Your task to perform on an android device: toggle wifi Image 0: 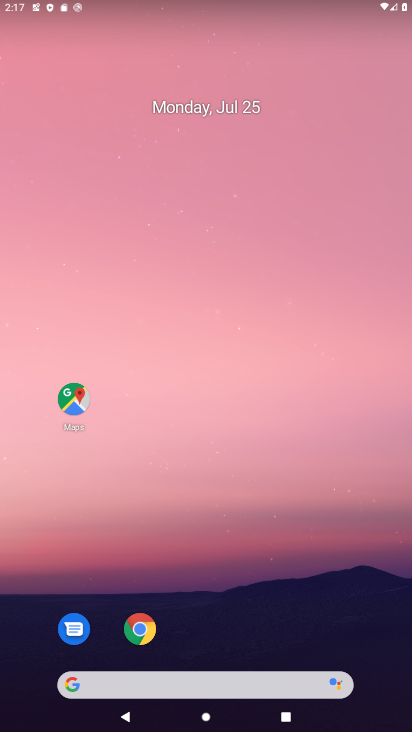
Step 0: drag from (178, 624) to (253, 107)
Your task to perform on an android device: toggle wifi Image 1: 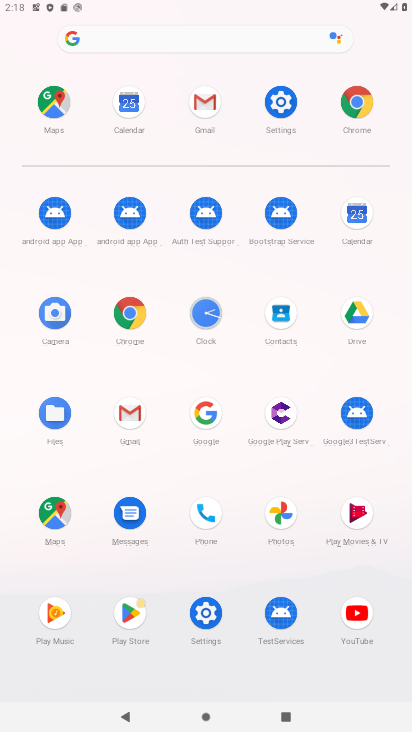
Step 1: click (204, 616)
Your task to perform on an android device: toggle wifi Image 2: 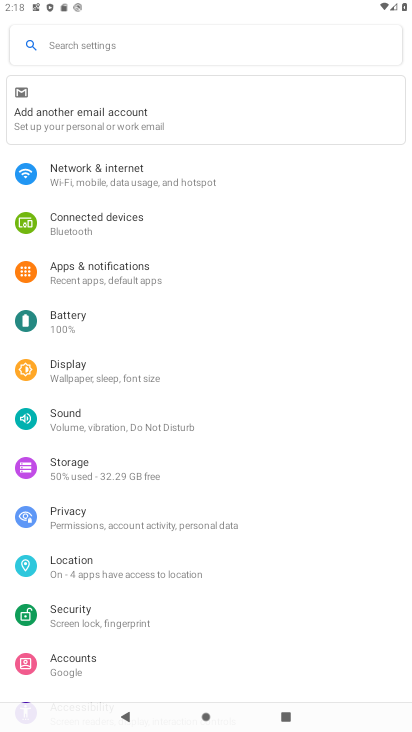
Step 2: click (112, 186)
Your task to perform on an android device: toggle wifi Image 3: 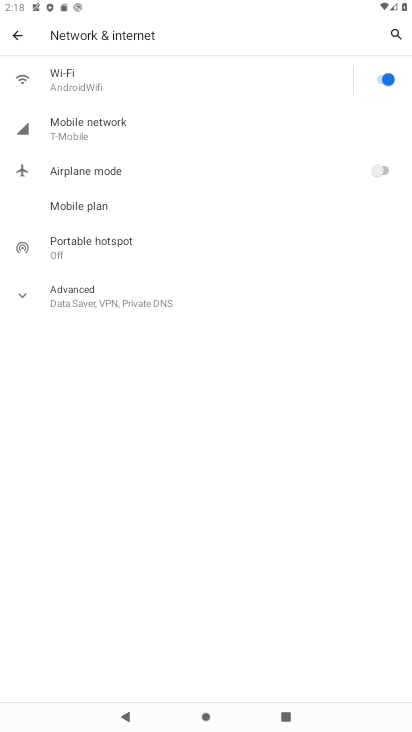
Step 3: click (142, 87)
Your task to perform on an android device: toggle wifi Image 4: 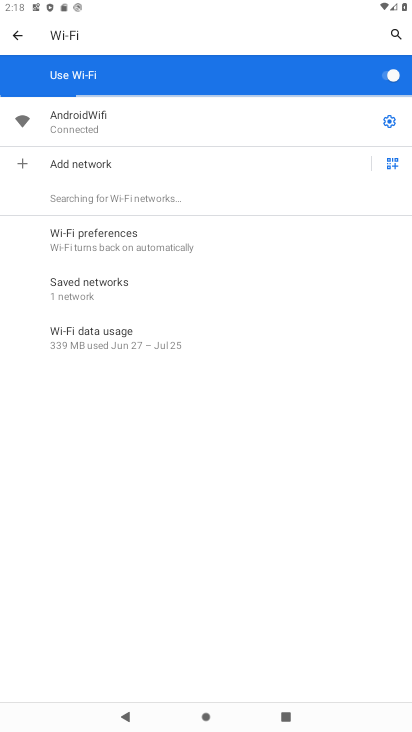
Step 4: click (388, 116)
Your task to perform on an android device: toggle wifi Image 5: 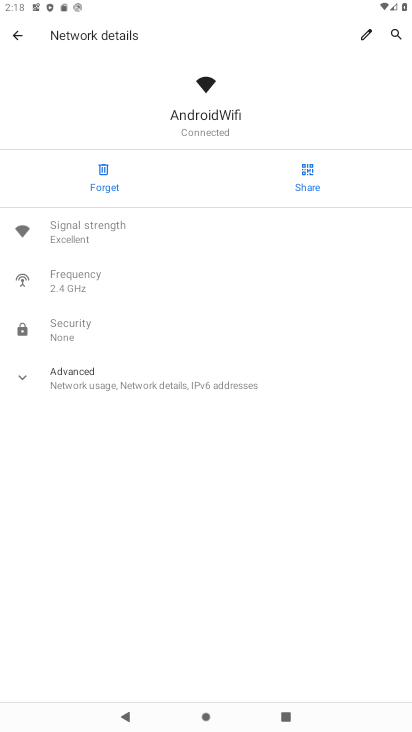
Step 5: click (10, 28)
Your task to perform on an android device: toggle wifi Image 6: 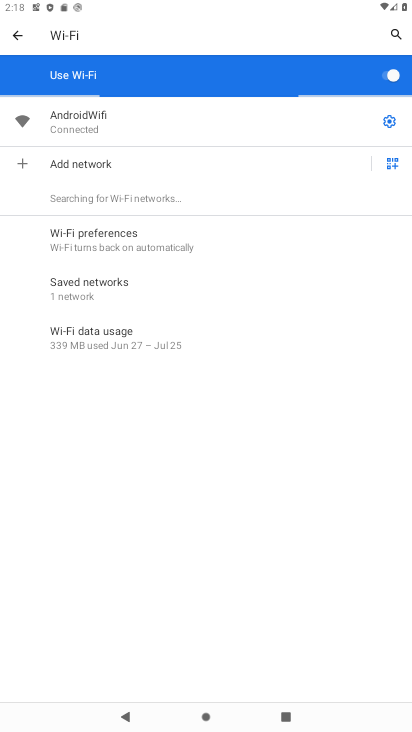
Step 6: click (384, 77)
Your task to perform on an android device: toggle wifi Image 7: 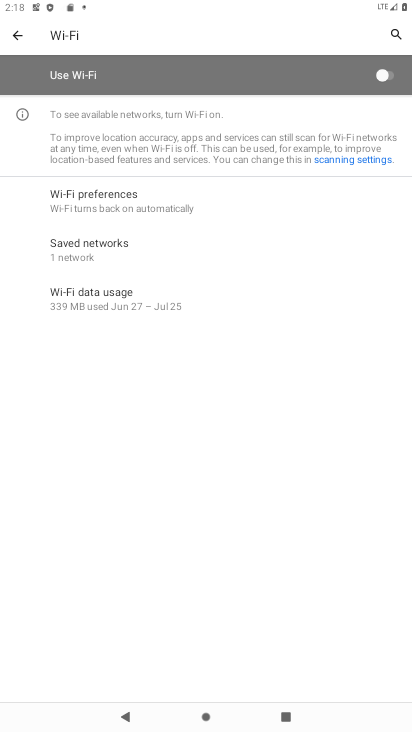
Step 7: task complete